Your task to perform on an android device: turn off smart reply in the gmail app Image 0: 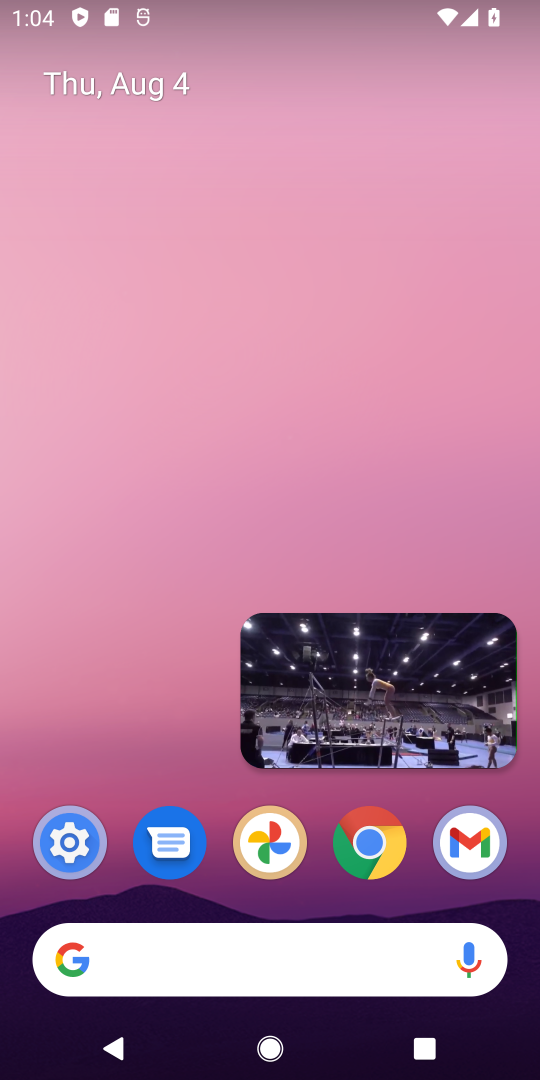
Step 0: click (470, 866)
Your task to perform on an android device: turn off smart reply in the gmail app Image 1: 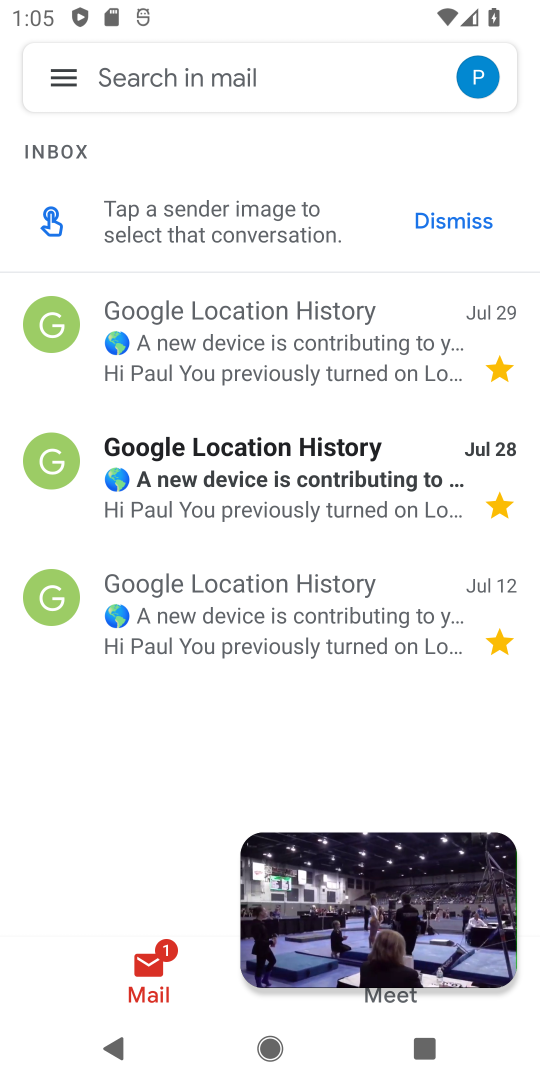
Step 1: click (65, 91)
Your task to perform on an android device: turn off smart reply in the gmail app Image 2: 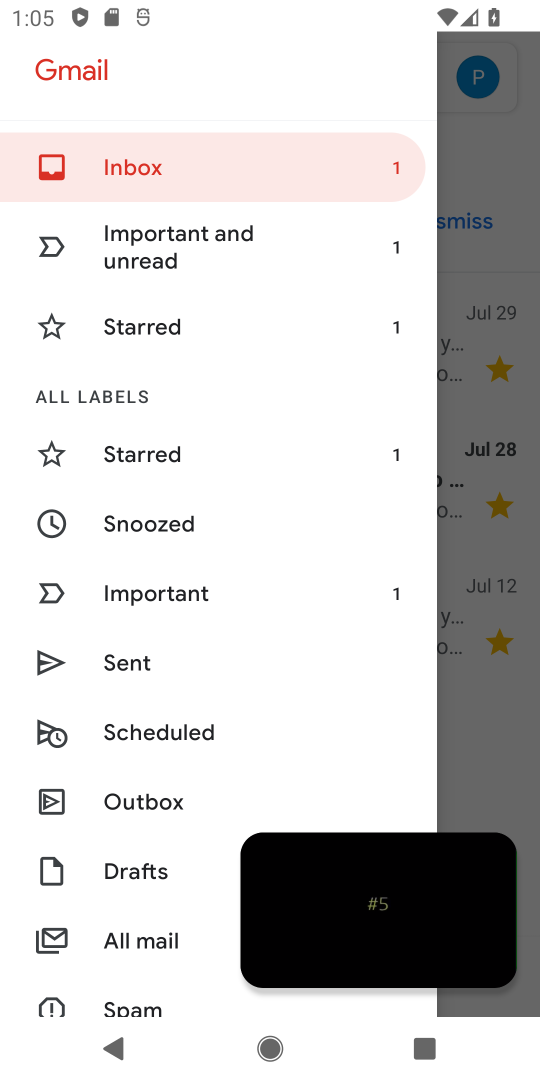
Step 2: drag from (160, 1000) to (52, 350)
Your task to perform on an android device: turn off smart reply in the gmail app Image 3: 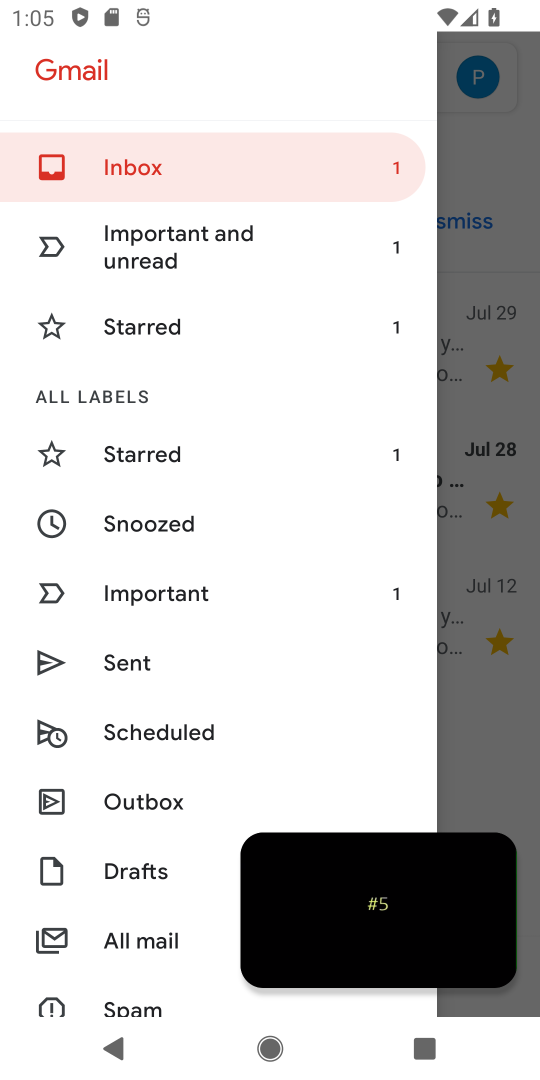
Step 3: drag from (90, 943) to (106, 263)
Your task to perform on an android device: turn off smart reply in the gmail app Image 4: 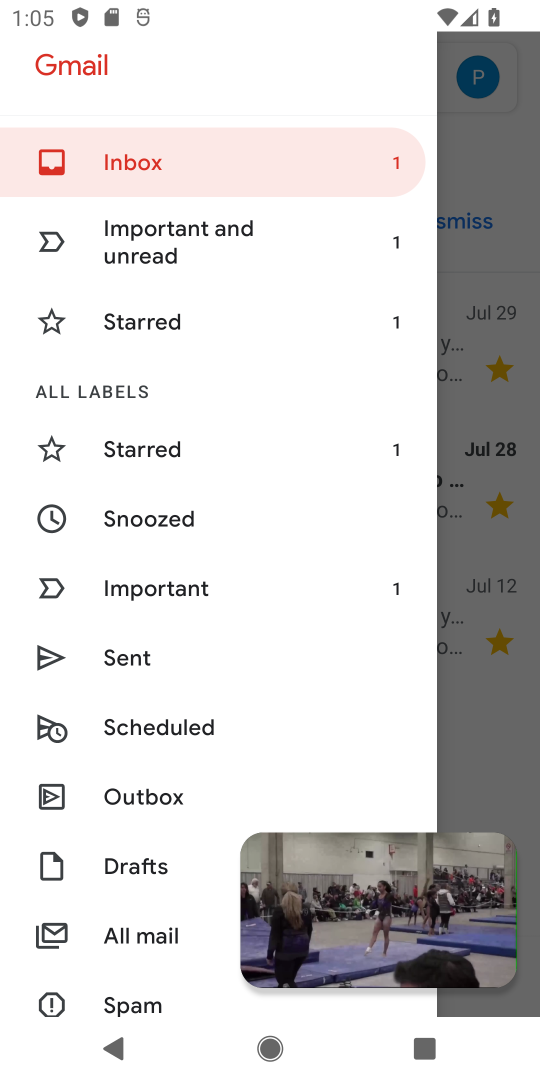
Step 4: drag from (83, 960) to (59, 352)
Your task to perform on an android device: turn off smart reply in the gmail app Image 5: 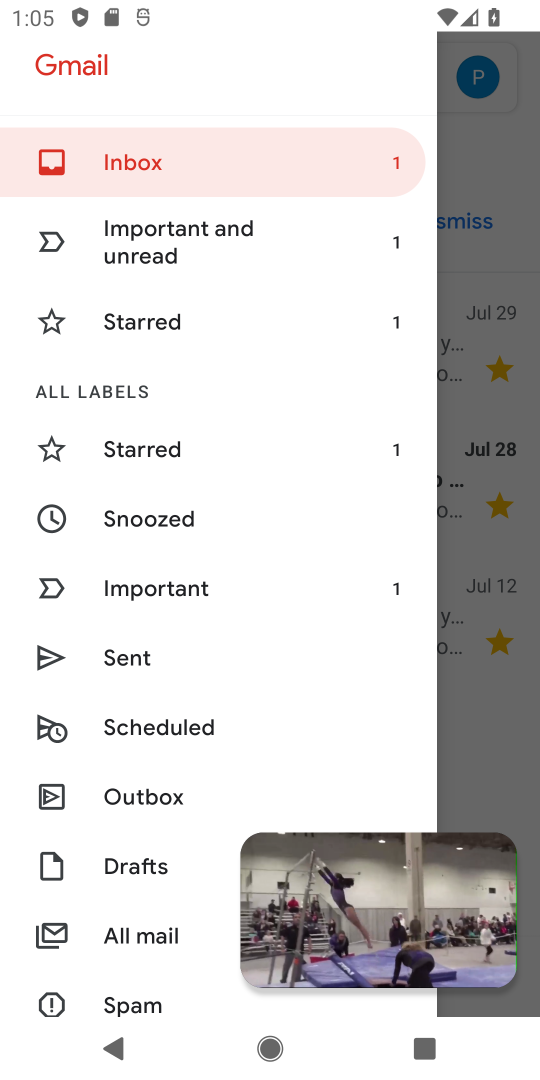
Step 5: drag from (100, 863) to (162, 42)
Your task to perform on an android device: turn off smart reply in the gmail app Image 6: 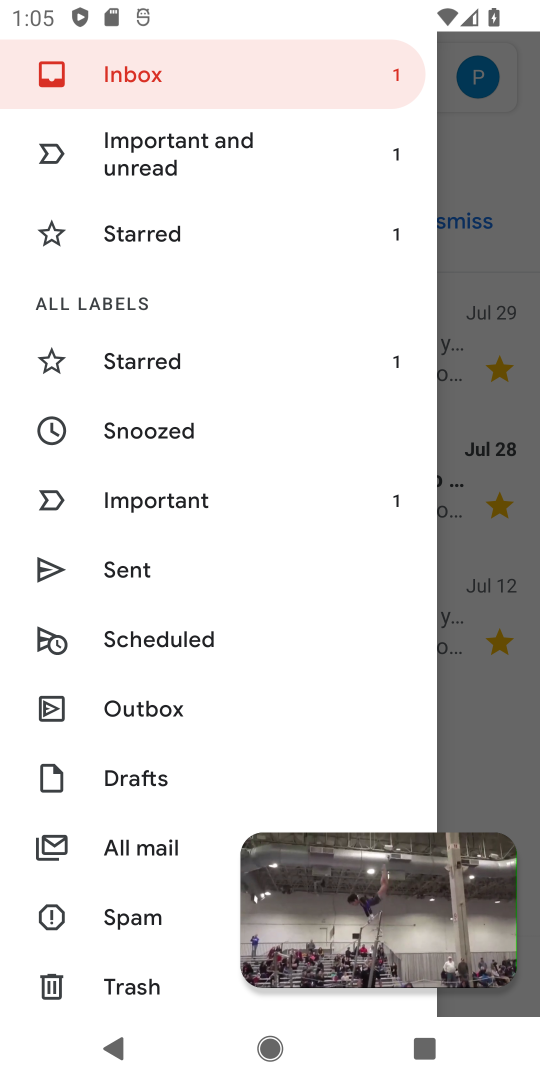
Step 6: drag from (145, 971) to (140, 451)
Your task to perform on an android device: turn off smart reply in the gmail app Image 7: 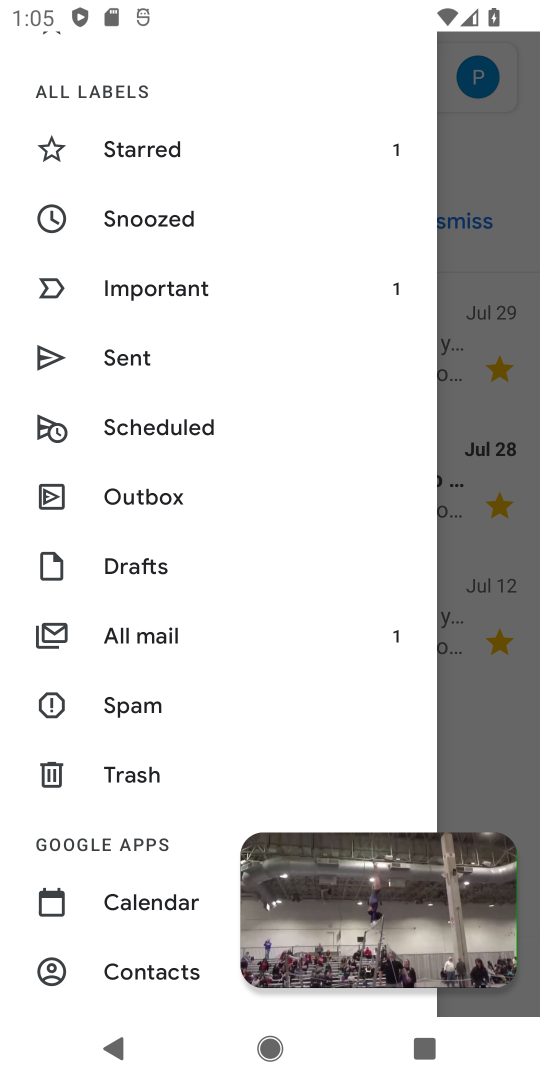
Step 7: drag from (171, 859) to (171, 40)
Your task to perform on an android device: turn off smart reply in the gmail app Image 8: 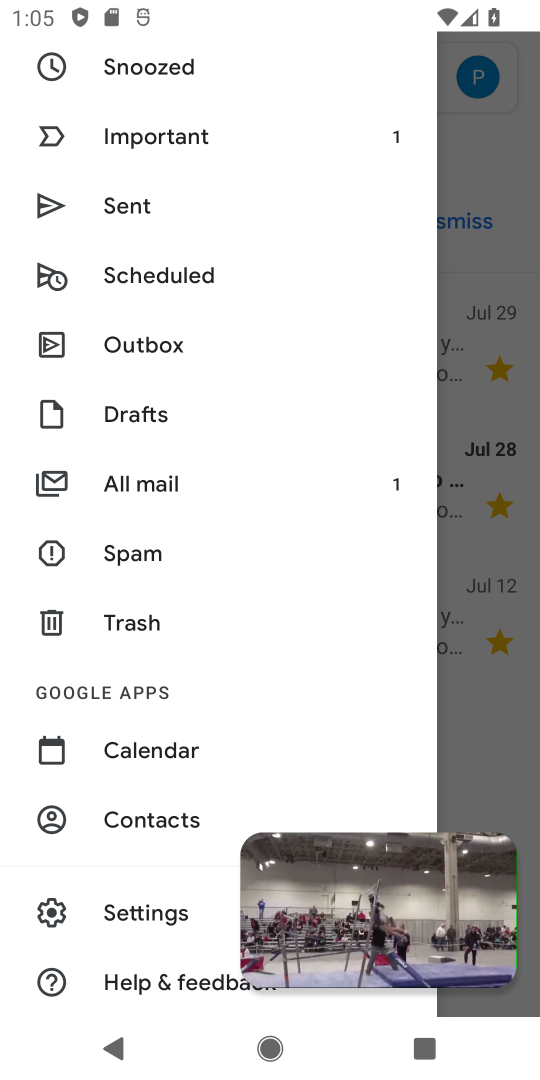
Step 8: click (163, 920)
Your task to perform on an android device: turn off smart reply in the gmail app Image 9: 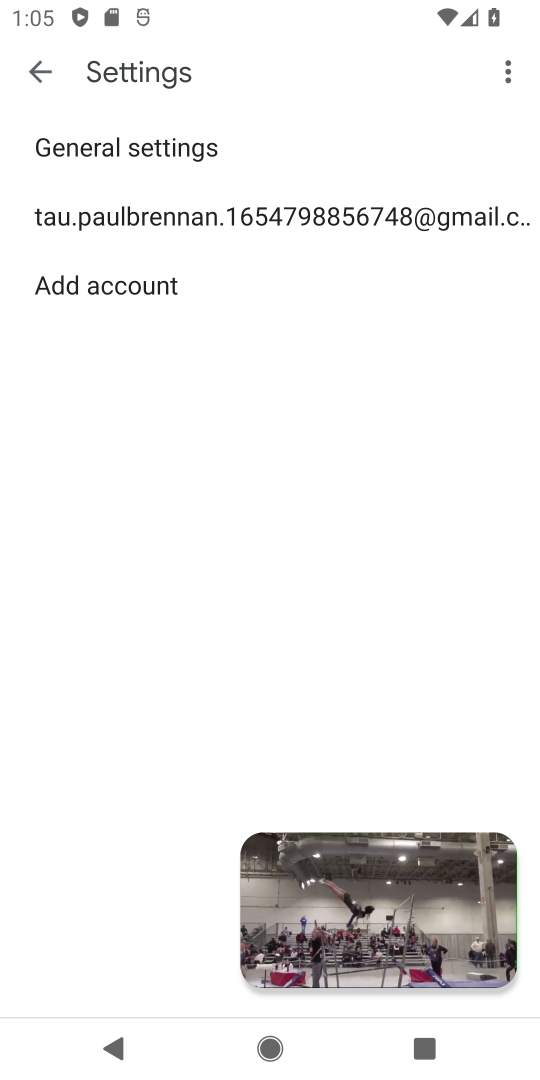
Step 9: click (318, 223)
Your task to perform on an android device: turn off smart reply in the gmail app Image 10: 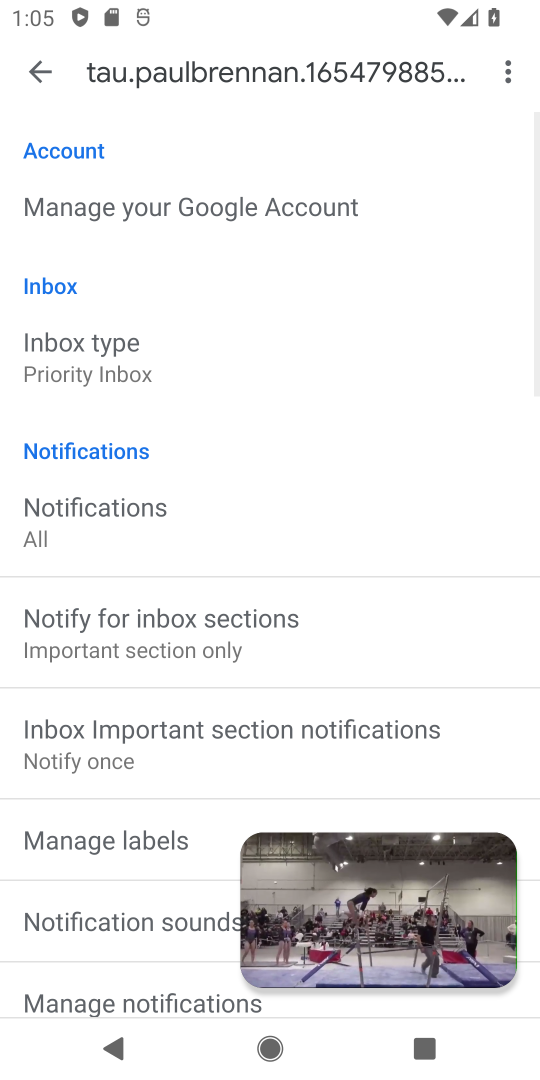
Step 10: drag from (109, 939) to (103, 284)
Your task to perform on an android device: turn off smart reply in the gmail app Image 11: 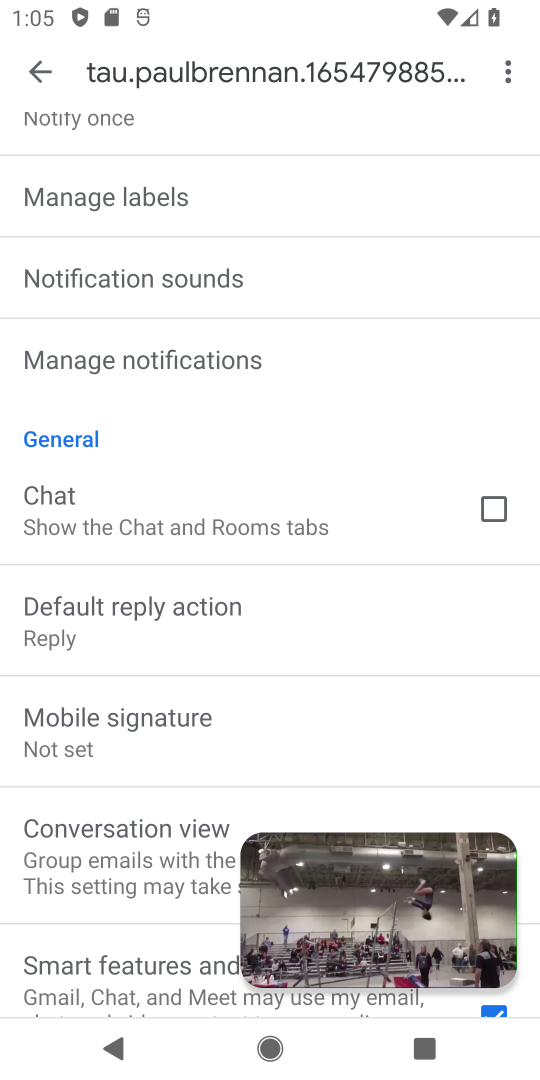
Step 11: drag from (79, 904) to (110, 460)
Your task to perform on an android device: turn off smart reply in the gmail app Image 12: 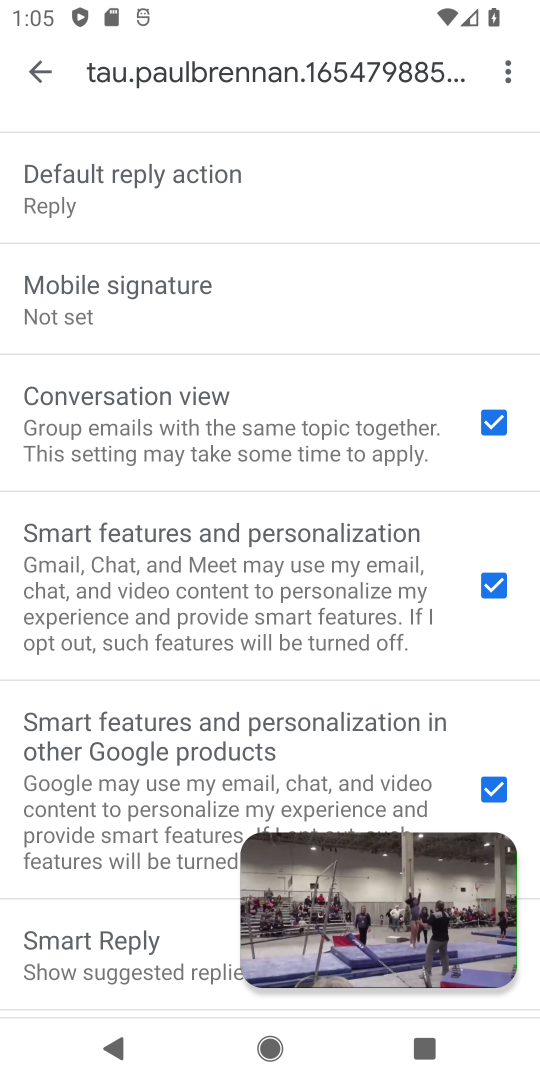
Step 12: drag from (133, 845) to (169, 40)
Your task to perform on an android device: turn off smart reply in the gmail app Image 13: 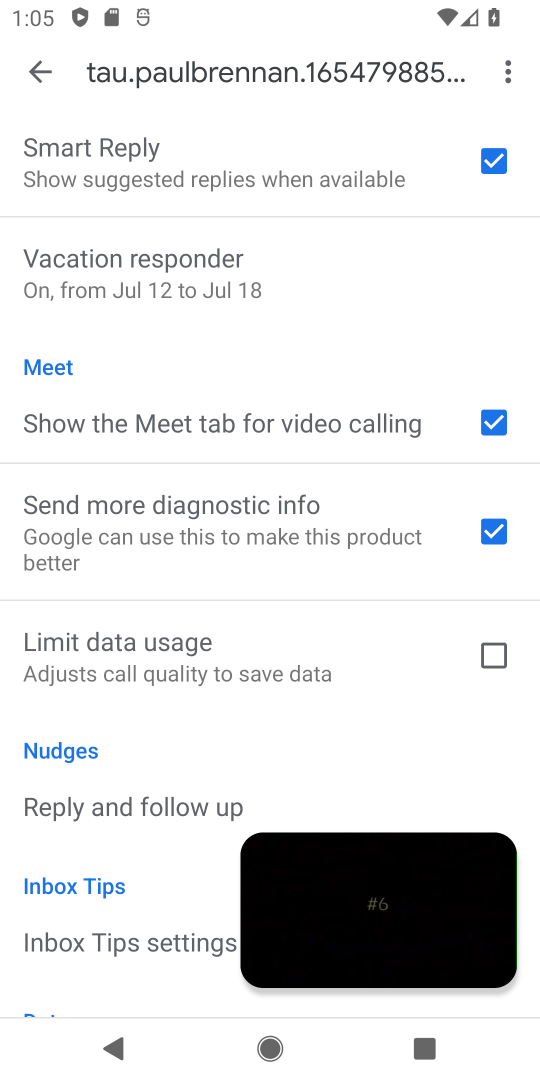
Step 13: click (474, 151)
Your task to perform on an android device: turn off smart reply in the gmail app Image 14: 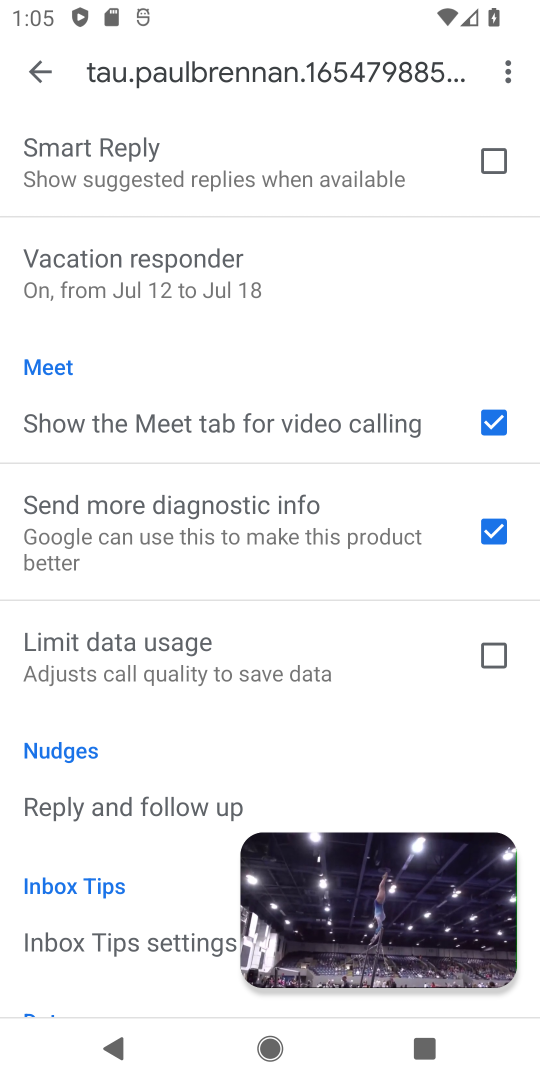
Step 14: task complete